Your task to perform on an android device: Open Amazon Image 0: 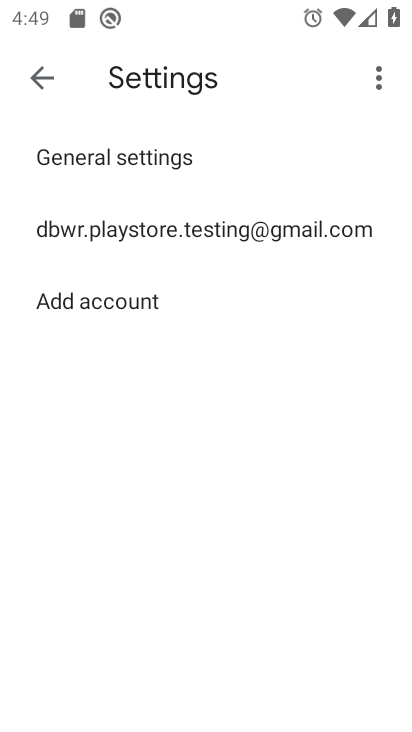
Step 0: press home button
Your task to perform on an android device: Open Amazon Image 1: 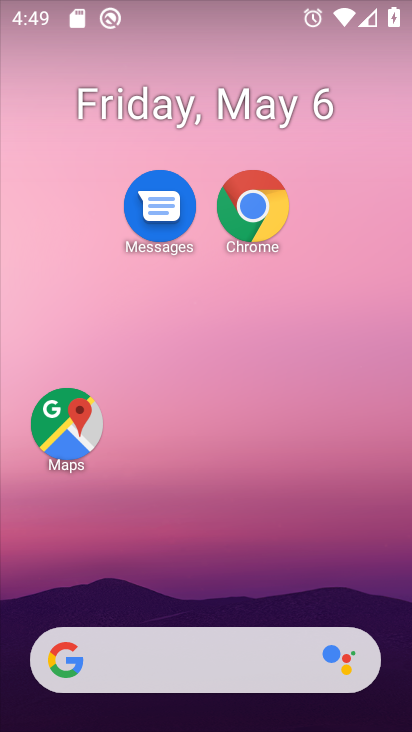
Step 1: drag from (203, 631) to (171, 320)
Your task to perform on an android device: Open Amazon Image 2: 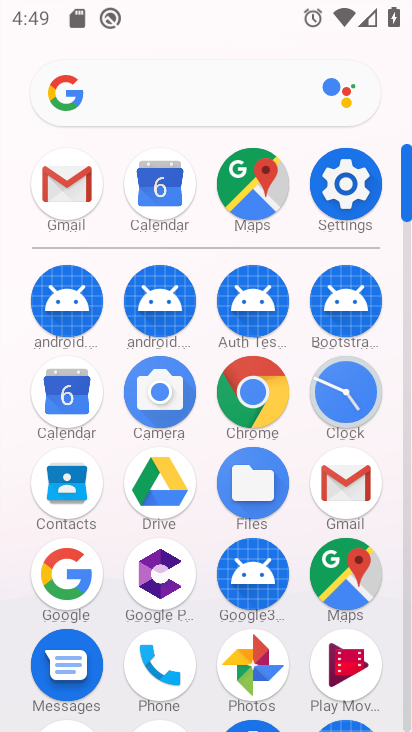
Step 2: drag from (206, 617) to (212, 326)
Your task to perform on an android device: Open Amazon Image 3: 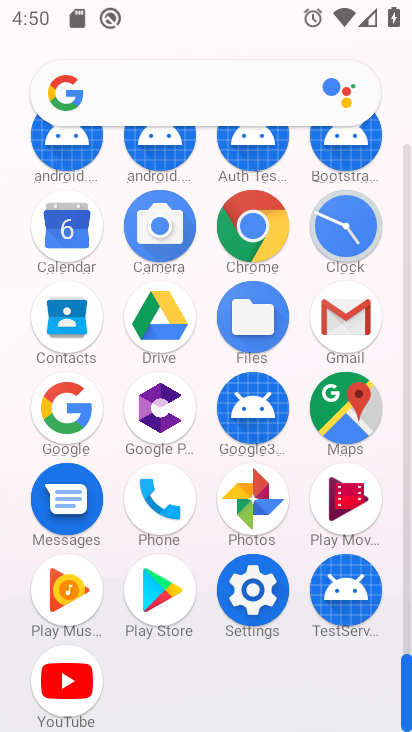
Step 3: click (262, 231)
Your task to perform on an android device: Open Amazon Image 4: 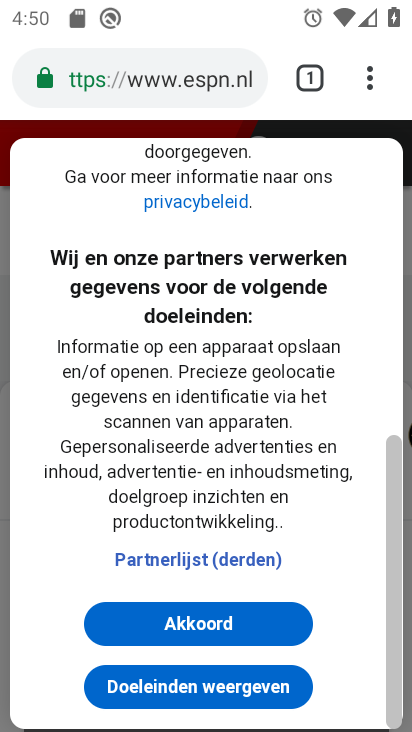
Step 4: click (320, 79)
Your task to perform on an android device: Open Amazon Image 5: 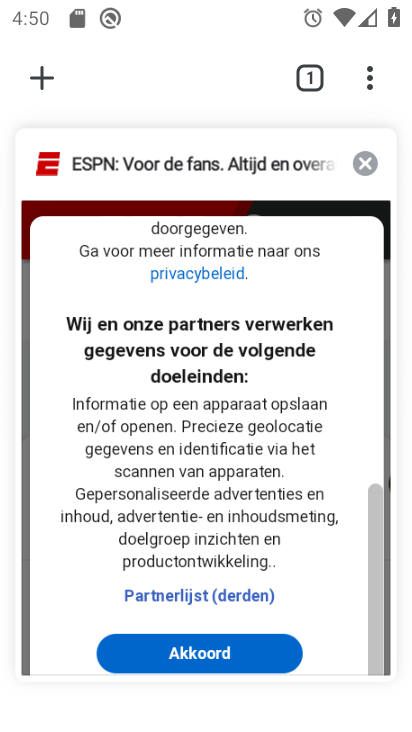
Step 5: click (357, 169)
Your task to perform on an android device: Open Amazon Image 6: 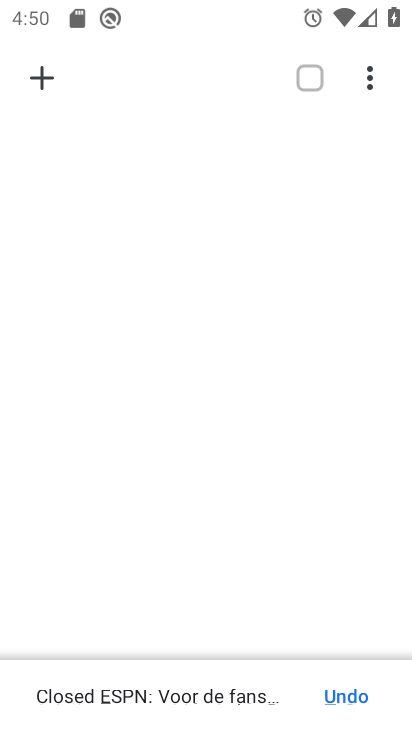
Step 6: click (38, 83)
Your task to perform on an android device: Open Amazon Image 7: 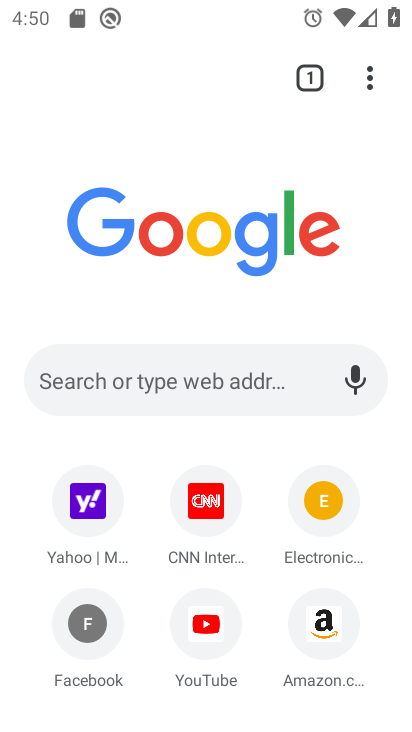
Step 7: click (317, 634)
Your task to perform on an android device: Open Amazon Image 8: 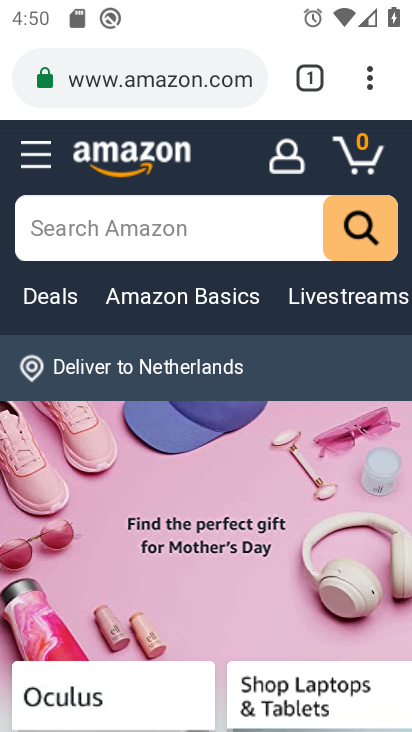
Step 8: task complete